Your task to perform on an android device: What is the news today? Image 0: 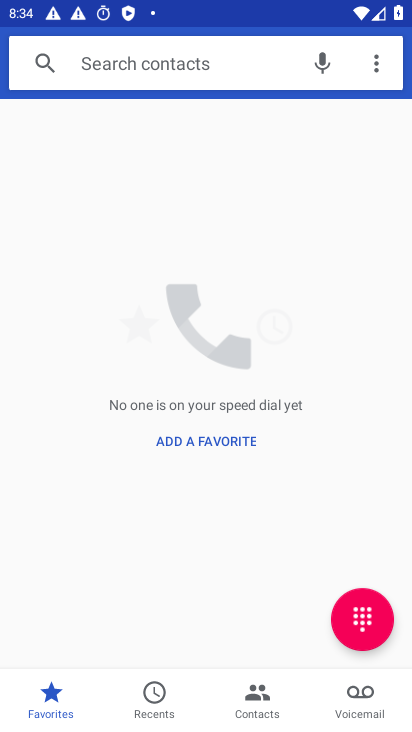
Step 0: press home button
Your task to perform on an android device: What is the news today? Image 1: 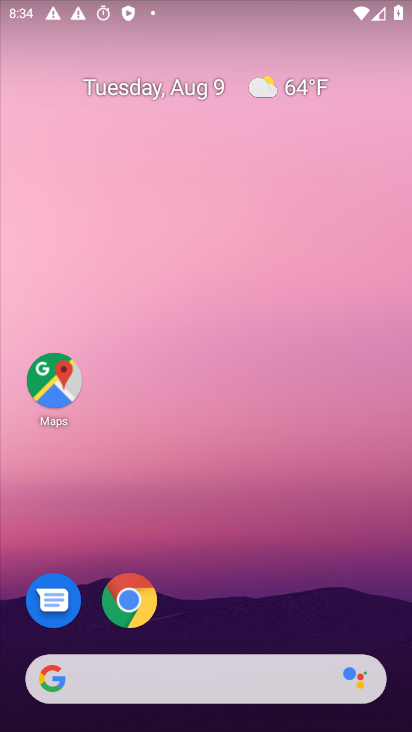
Step 1: click (56, 684)
Your task to perform on an android device: What is the news today? Image 2: 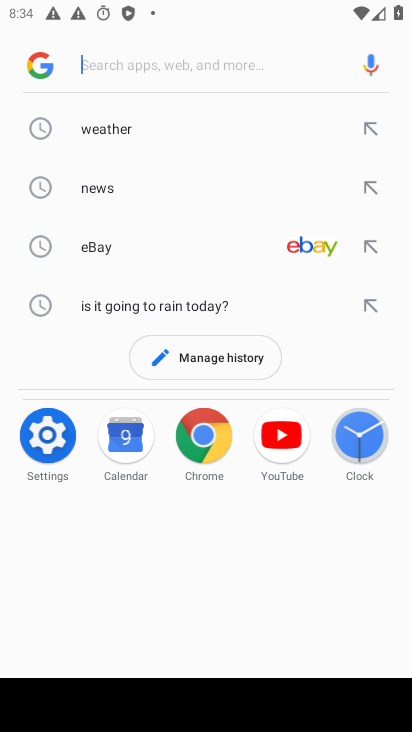
Step 2: type "news today?"
Your task to perform on an android device: What is the news today? Image 3: 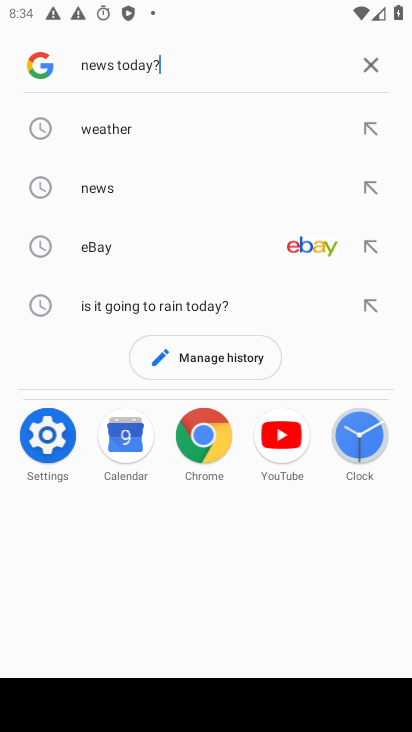
Step 3: press enter
Your task to perform on an android device: What is the news today? Image 4: 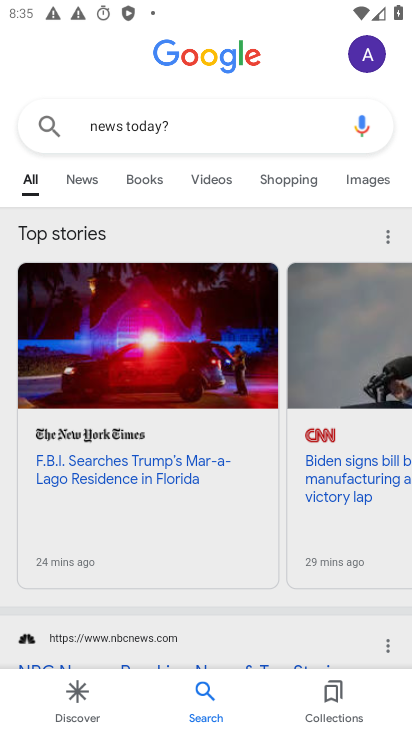
Step 4: task complete